Your task to perform on an android device: set the stopwatch Image 0: 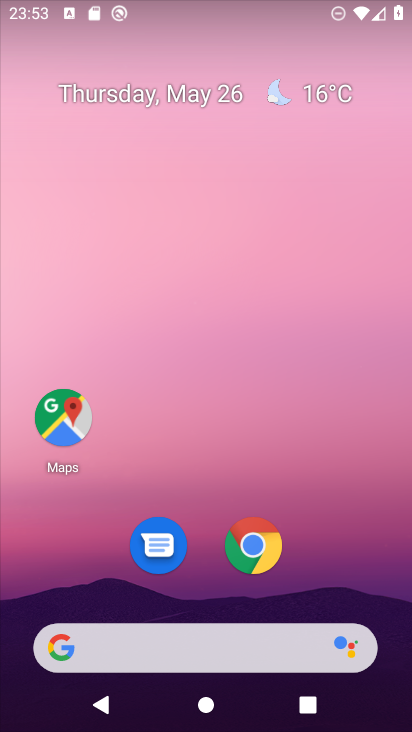
Step 0: press home button
Your task to perform on an android device: set the stopwatch Image 1: 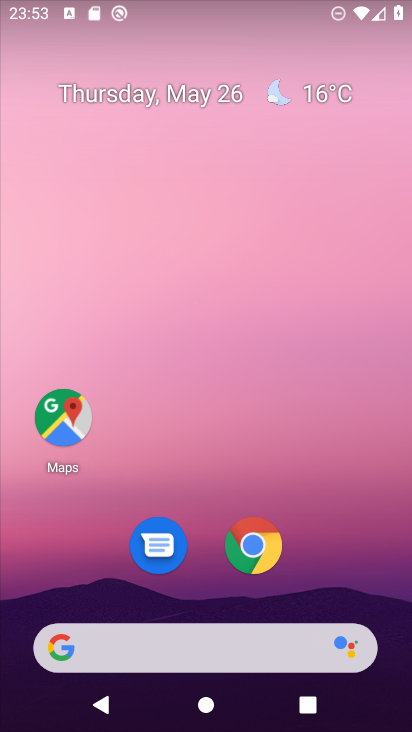
Step 1: drag from (318, 608) to (285, 296)
Your task to perform on an android device: set the stopwatch Image 2: 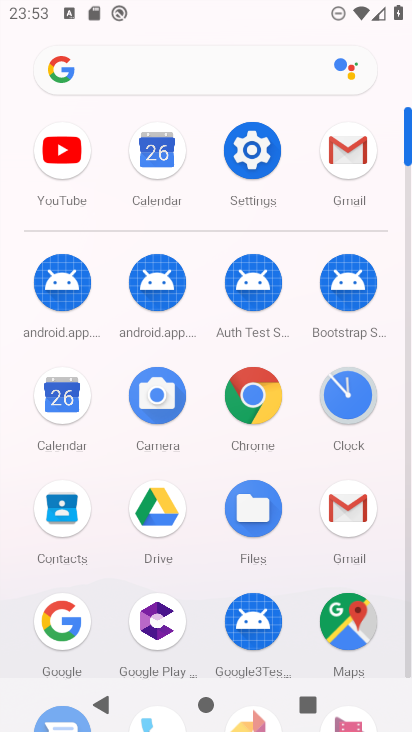
Step 2: click (353, 411)
Your task to perform on an android device: set the stopwatch Image 3: 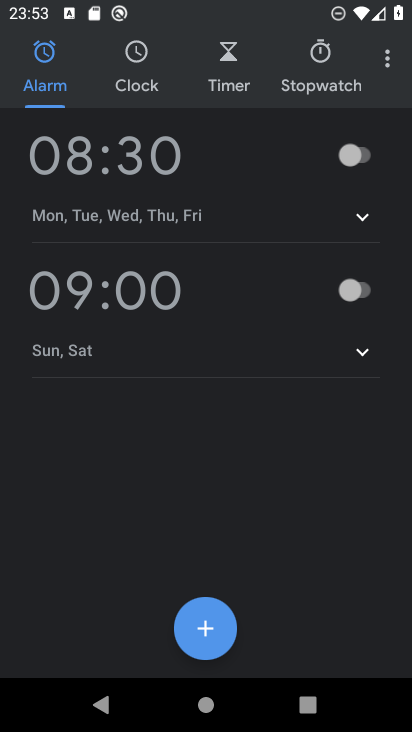
Step 3: click (326, 63)
Your task to perform on an android device: set the stopwatch Image 4: 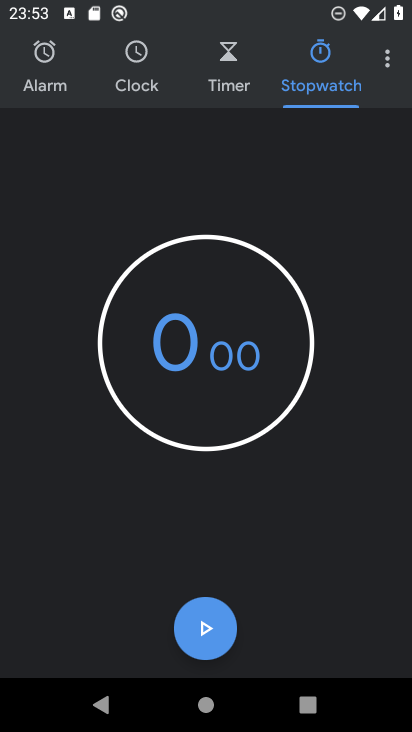
Step 4: click (175, 346)
Your task to perform on an android device: set the stopwatch Image 5: 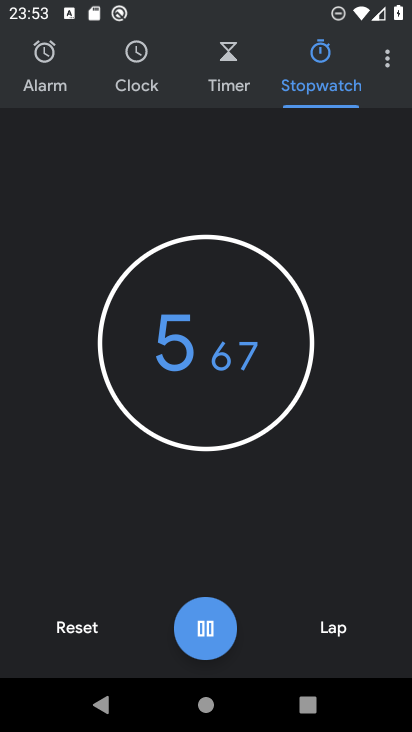
Step 5: task complete